Your task to perform on an android device: Open Chrome and go to the settings page Image 0: 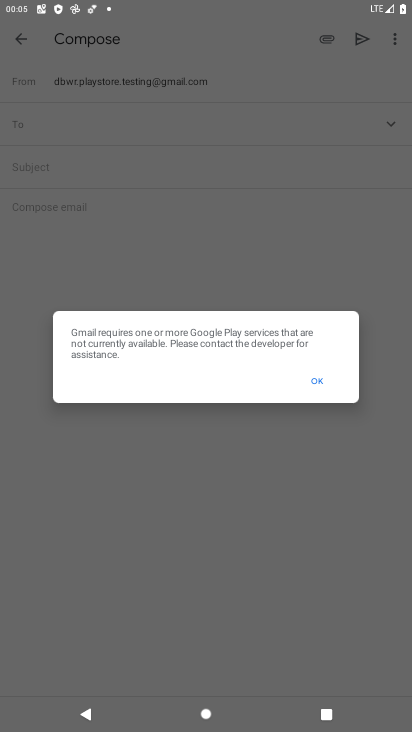
Step 0: press home button
Your task to perform on an android device: Open Chrome and go to the settings page Image 1: 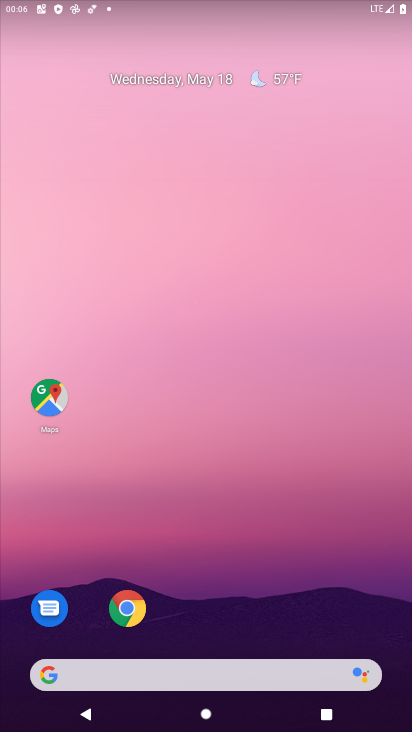
Step 1: click (127, 613)
Your task to perform on an android device: Open Chrome and go to the settings page Image 2: 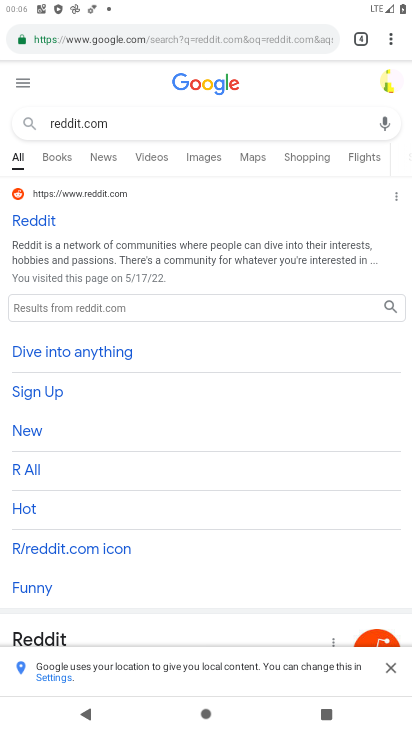
Step 2: click (388, 37)
Your task to perform on an android device: Open Chrome and go to the settings page Image 3: 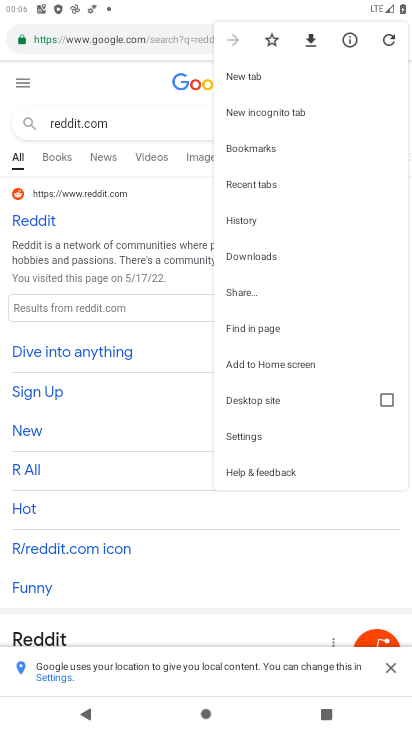
Step 3: click (246, 436)
Your task to perform on an android device: Open Chrome and go to the settings page Image 4: 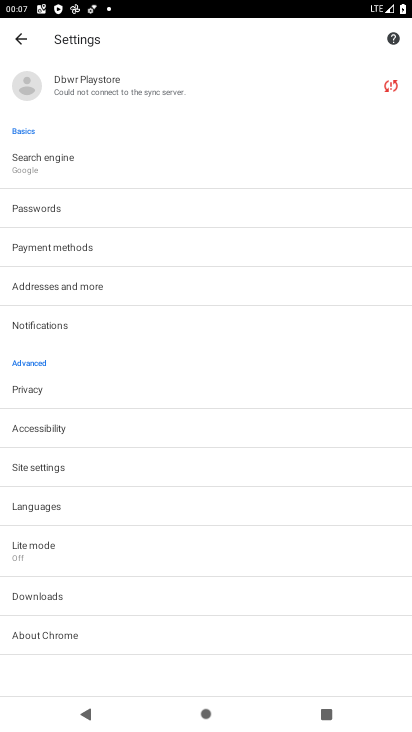
Step 4: task complete